Your task to perform on an android device: Search for sushi restaurants on Maps Image 0: 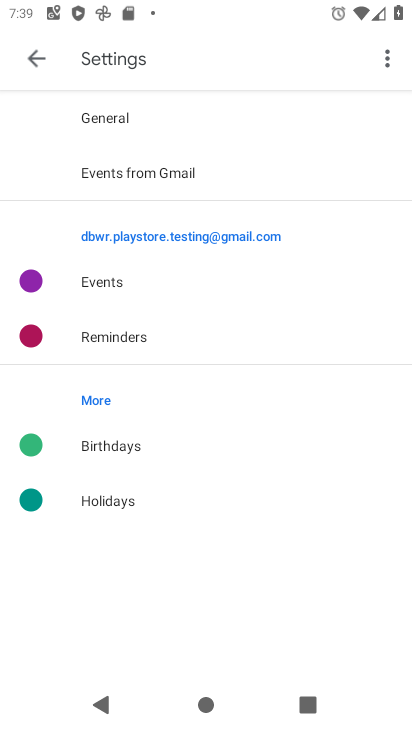
Step 0: press home button
Your task to perform on an android device: Search for sushi restaurants on Maps Image 1: 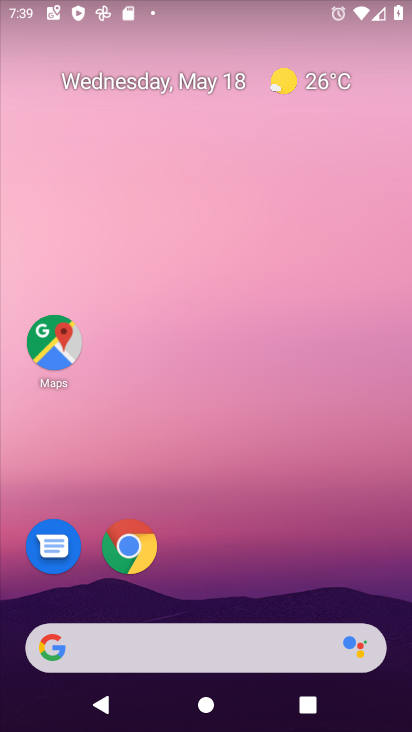
Step 1: drag from (404, 621) to (295, 8)
Your task to perform on an android device: Search for sushi restaurants on Maps Image 2: 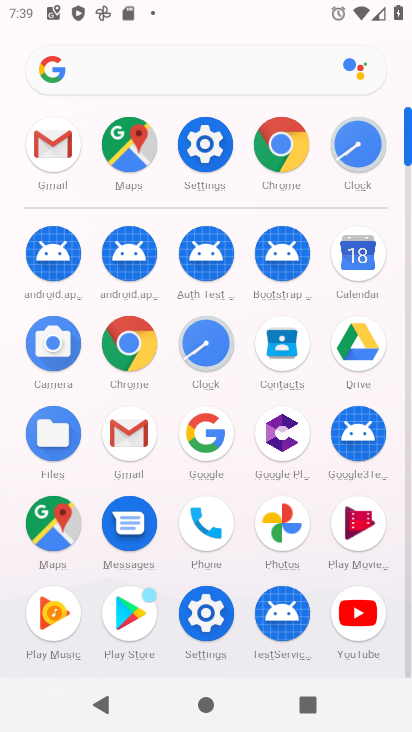
Step 2: click (33, 536)
Your task to perform on an android device: Search for sushi restaurants on Maps Image 3: 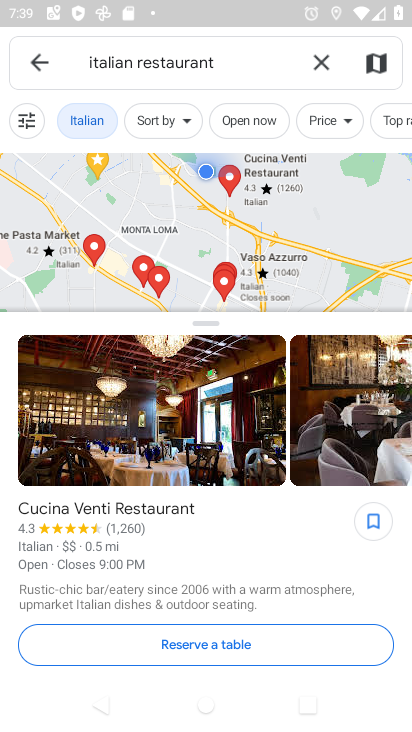
Step 3: click (314, 63)
Your task to perform on an android device: Search for sushi restaurants on Maps Image 4: 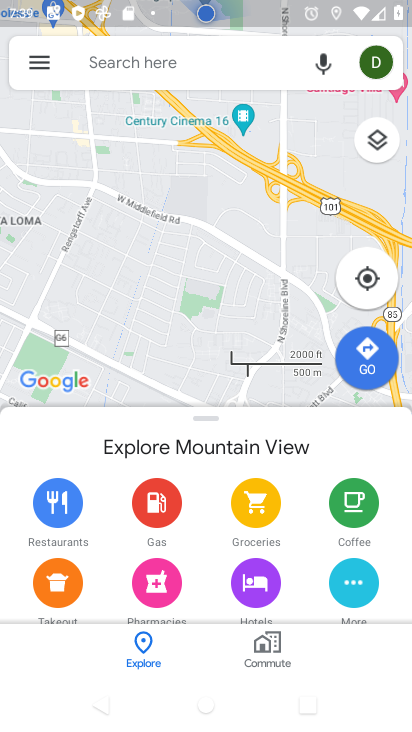
Step 4: click (126, 64)
Your task to perform on an android device: Search for sushi restaurants on Maps Image 5: 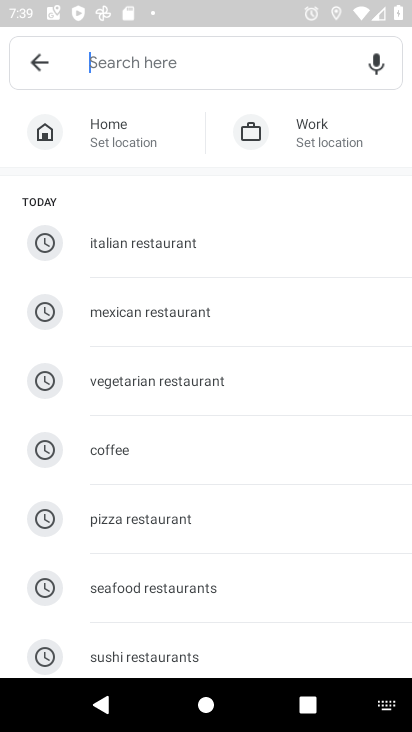
Step 5: click (164, 646)
Your task to perform on an android device: Search for sushi restaurants on Maps Image 6: 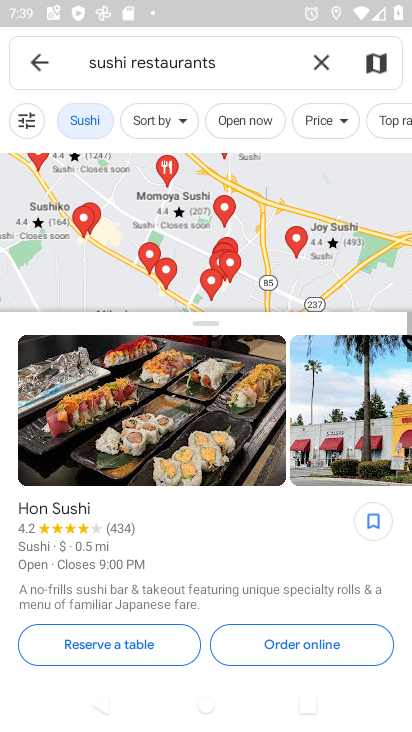
Step 6: task complete